Your task to perform on an android device: Empty the shopping cart on newegg. Add "logitech g933" to the cart on newegg Image 0: 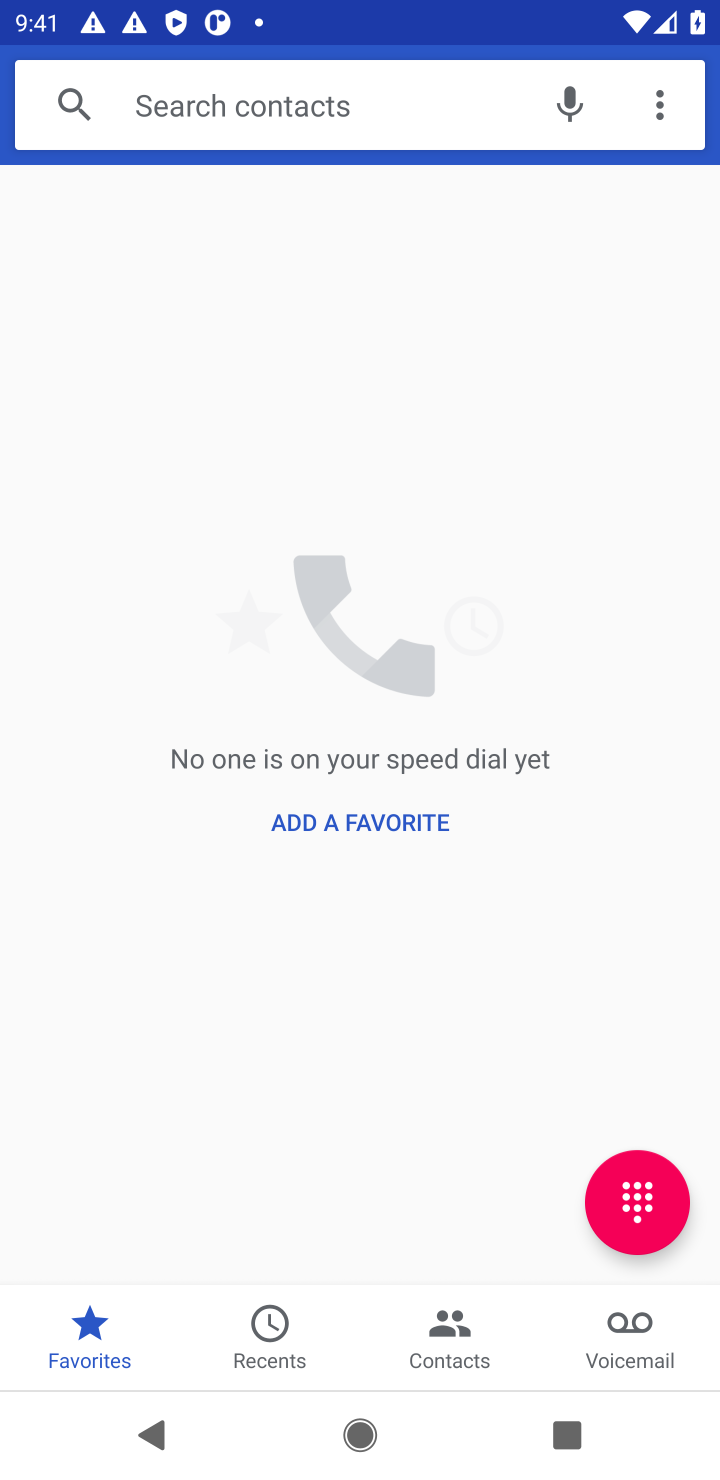
Step 0: task complete